Your task to perform on an android device: Open ESPN.com Image 0: 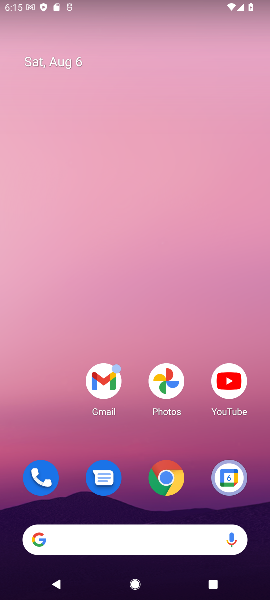
Step 0: click (162, 481)
Your task to perform on an android device: Open ESPN.com Image 1: 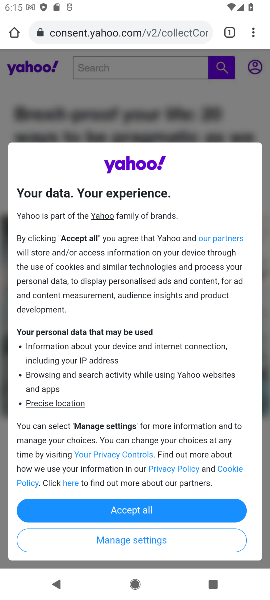
Step 1: click (127, 31)
Your task to perform on an android device: Open ESPN.com Image 2: 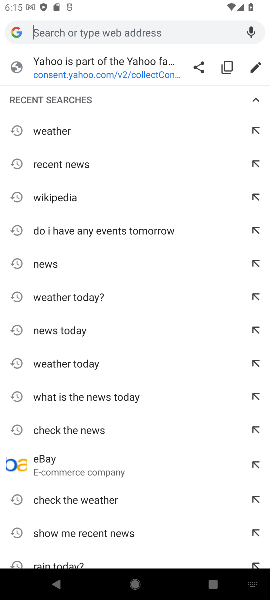
Step 2: type "ESPN.com"
Your task to perform on an android device: Open ESPN.com Image 3: 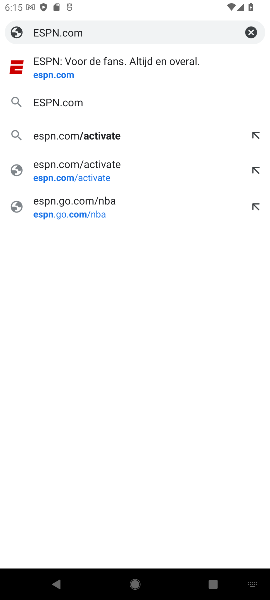
Step 3: click (83, 70)
Your task to perform on an android device: Open ESPN.com Image 4: 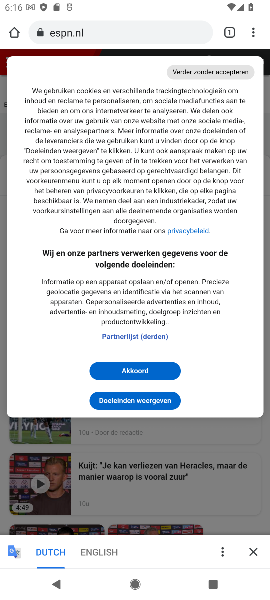
Step 4: task complete